Your task to perform on an android device: What's on my calendar today? Image 0: 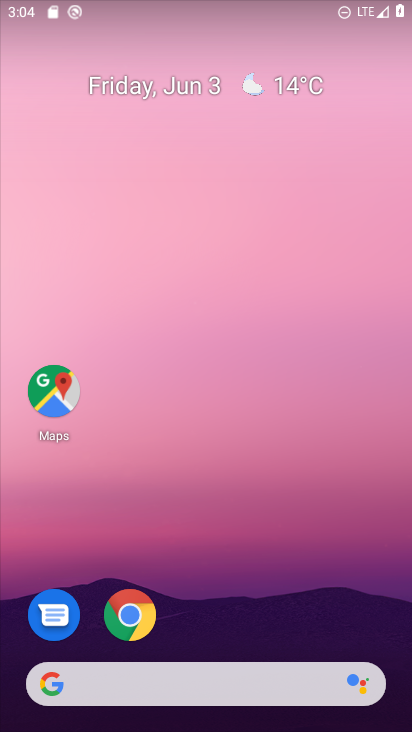
Step 0: click (193, 16)
Your task to perform on an android device: What's on my calendar today? Image 1: 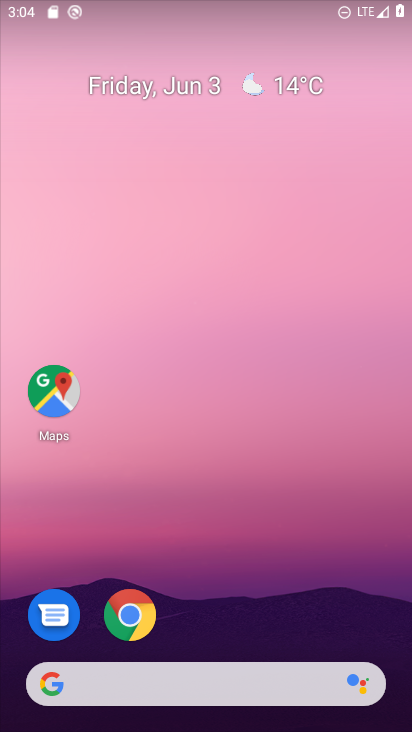
Step 1: drag from (218, 593) to (318, 9)
Your task to perform on an android device: What's on my calendar today? Image 2: 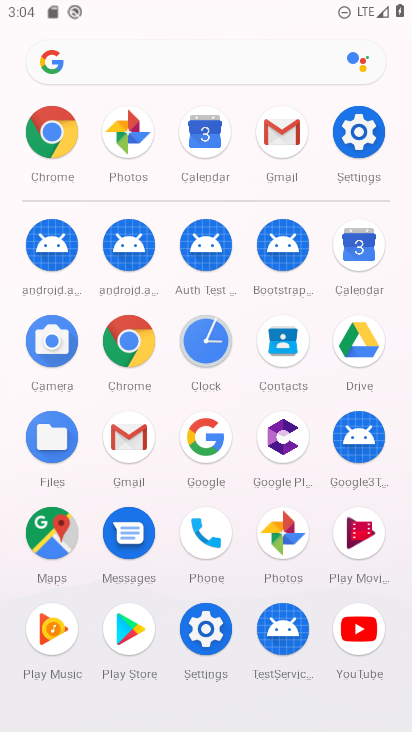
Step 2: click (351, 242)
Your task to perform on an android device: What's on my calendar today? Image 3: 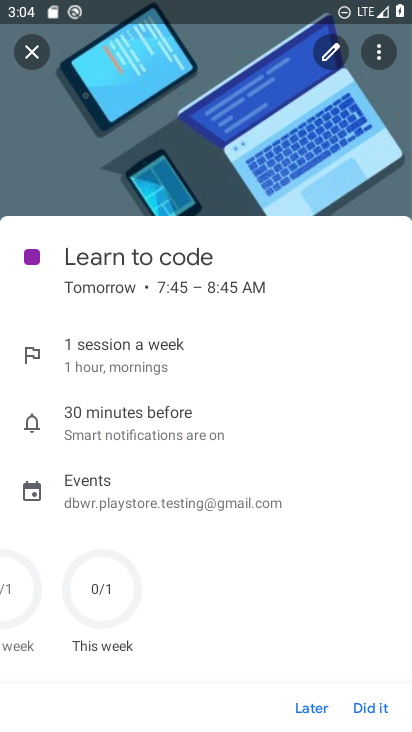
Step 3: drag from (162, 367) to (173, 89)
Your task to perform on an android device: What's on my calendar today? Image 4: 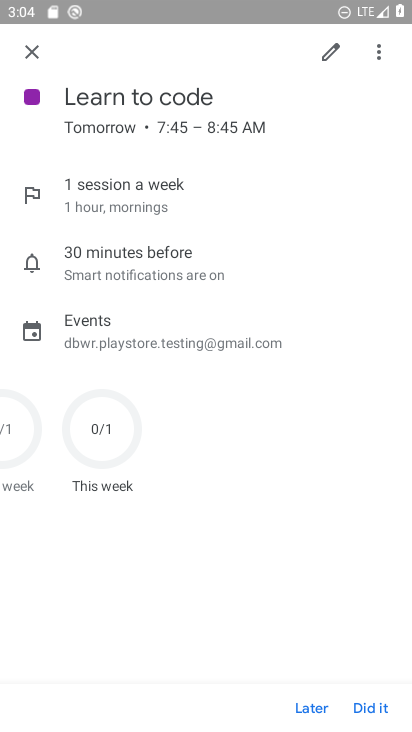
Step 4: click (27, 47)
Your task to perform on an android device: What's on my calendar today? Image 5: 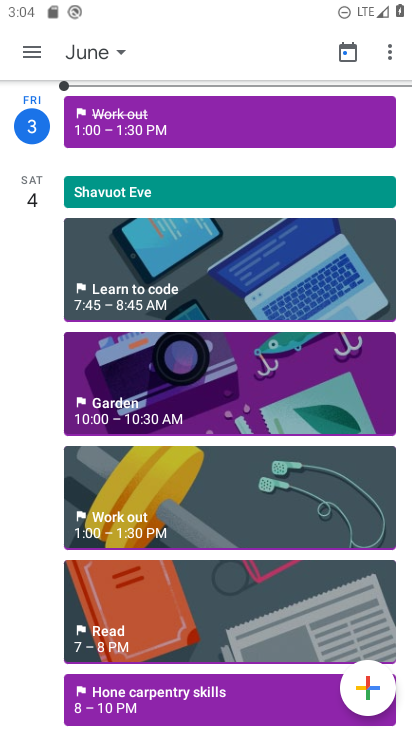
Step 5: click (106, 39)
Your task to perform on an android device: What's on my calendar today? Image 6: 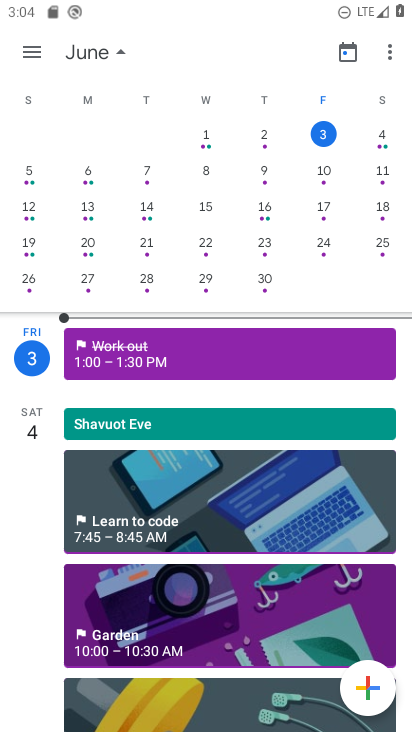
Step 6: click (308, 132)
Your task to perform on an android device: What's on my calendar today? Image 7: 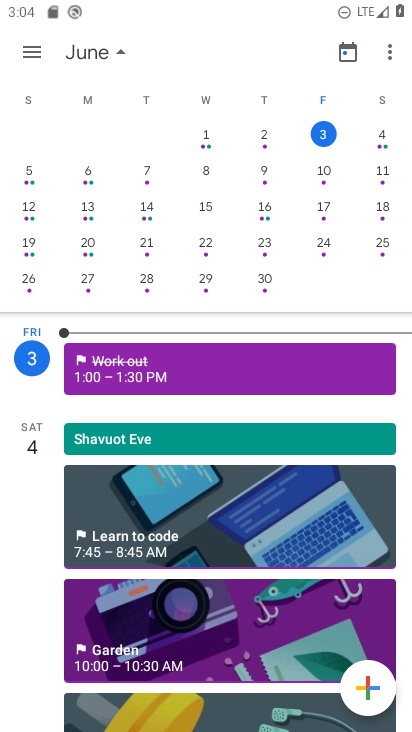
Step 7: task complete